Your task to perform on an android device: open app "Life360: Find Family & Friends" (install if not already installed) and enter user name: "gusts@gmail.com" and password: "assurers" Image 0: 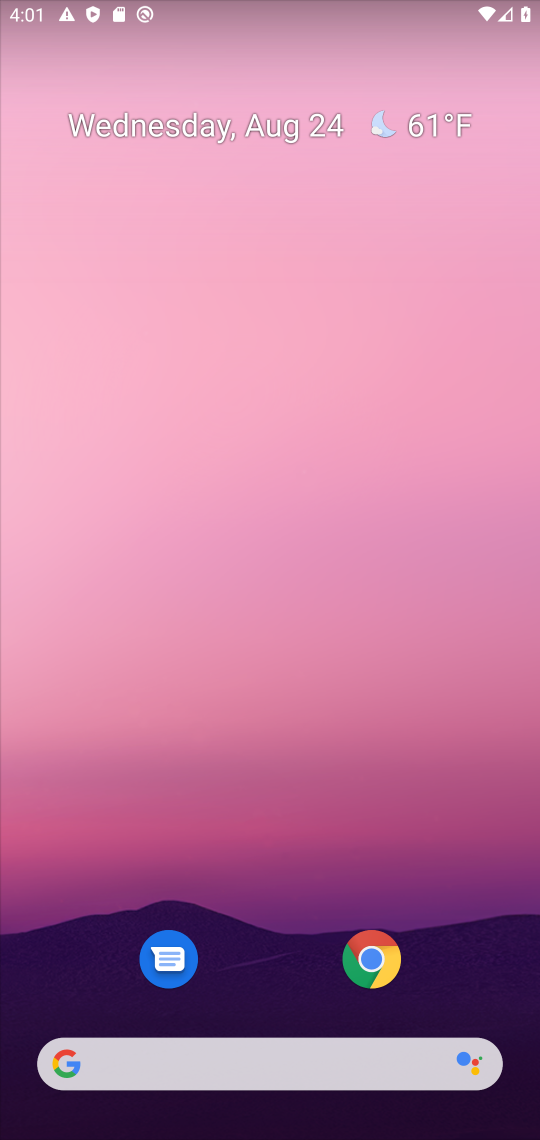
Step 0: drag from (295, 1006) to (289, 7)
Your task to perform on an android device: open app "Life360: Find Family & Friends" (install if not already installed) and enter user name: "gusts@gmail.com" and password: "assurers" Image 1: 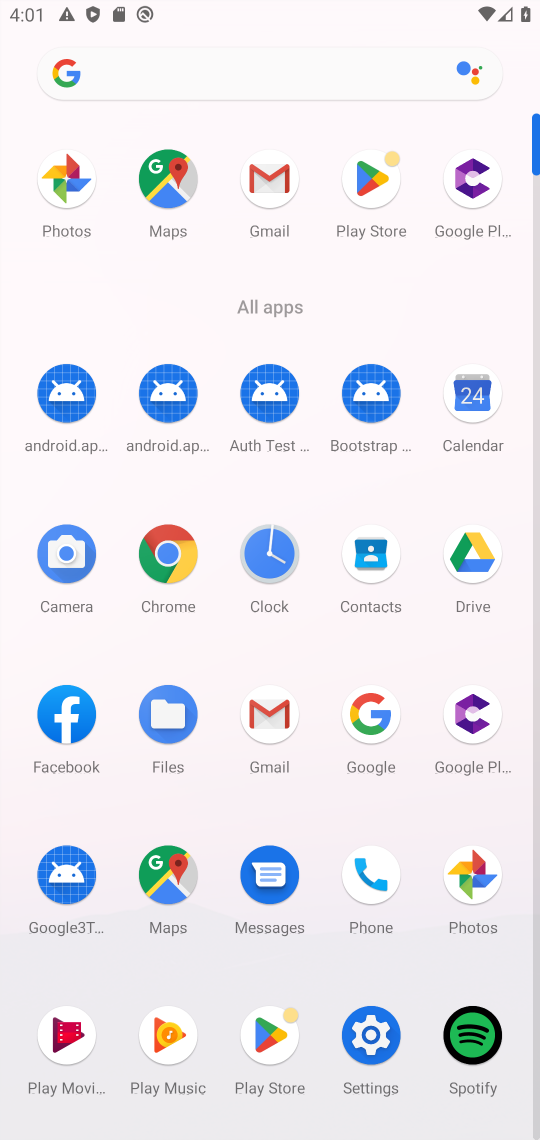
Step 1: click (263, 1044)
Your task to perform on an android device: open app "Life360: Find Family & Friends" (install if not already installed) and enter user name: "gusts@gmail.com" and password: "assurers" Image 2: 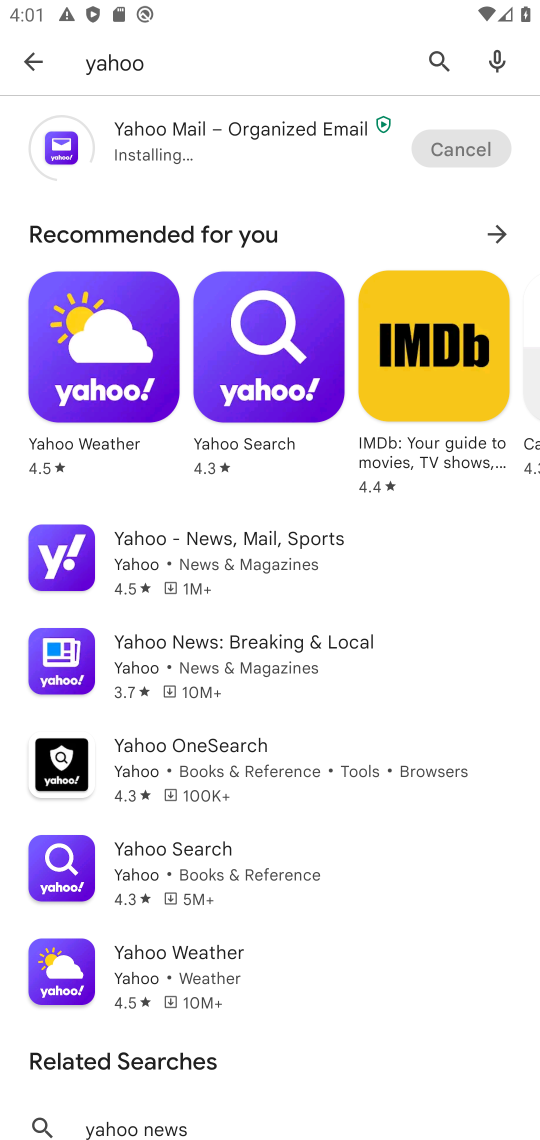
Step 2: click (422, 61)
Your task to perform on an android device: open app "Life360: Find Family & Friends" (install if not already installed) and enter user name: "gusts@gmail.com" and password: "assurers" Image 3: 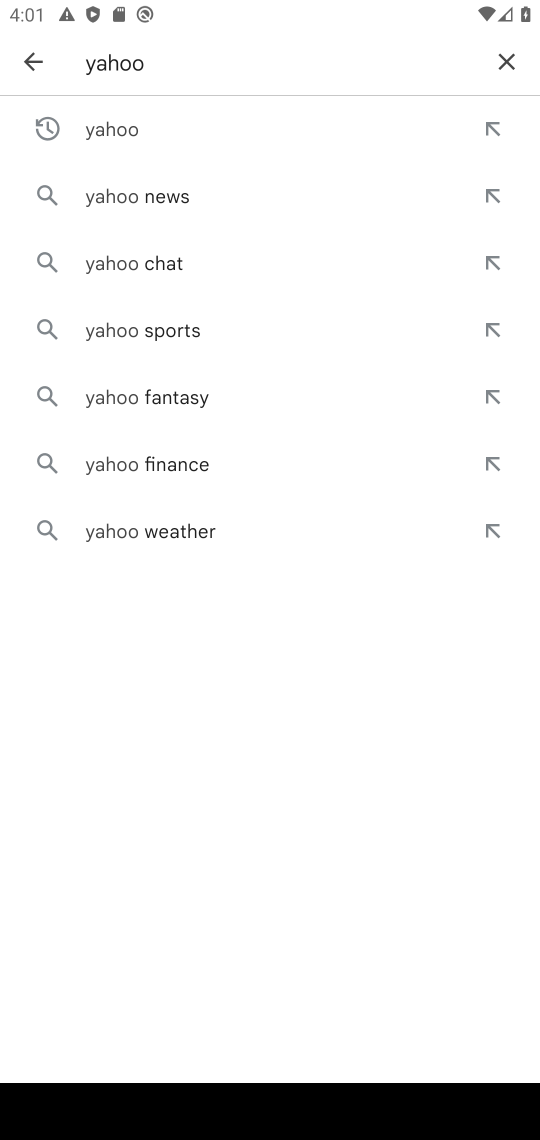
Step 3: click (506, 63)
Your task to perform on an android device: open app "Life360: Find Family & Friends" (install if not already installed) and enter user name: "gusts@gmail.com" and password: "assurers" Image 4: 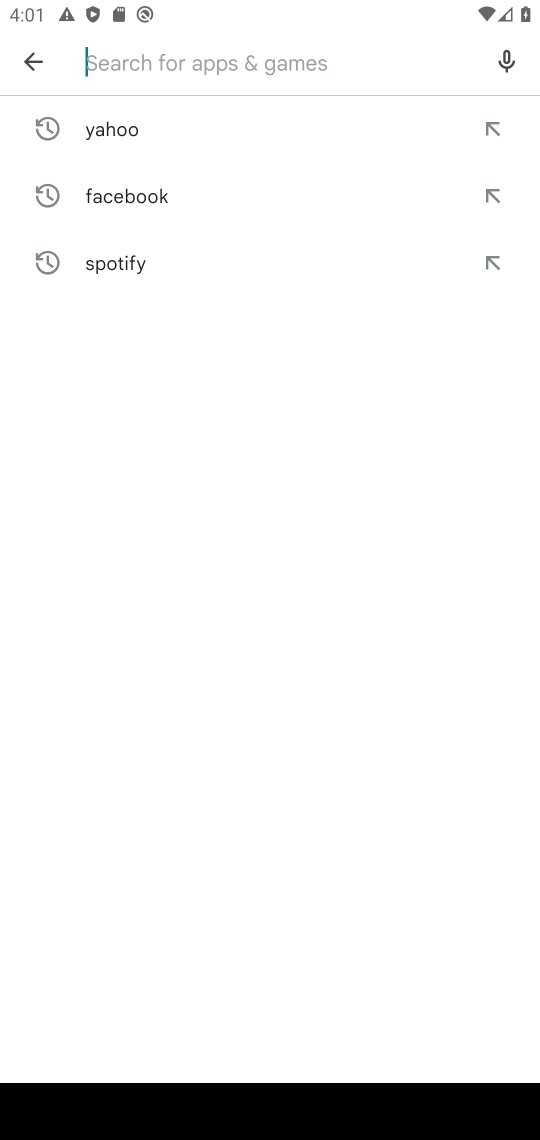
Step 4: type "life360"
Your task to perform on an android device: open app "Life360: Find Family & Friends" (install if not already installed) and enter user name: "gusts@gmail.com" and password: "assurers" Image 5: 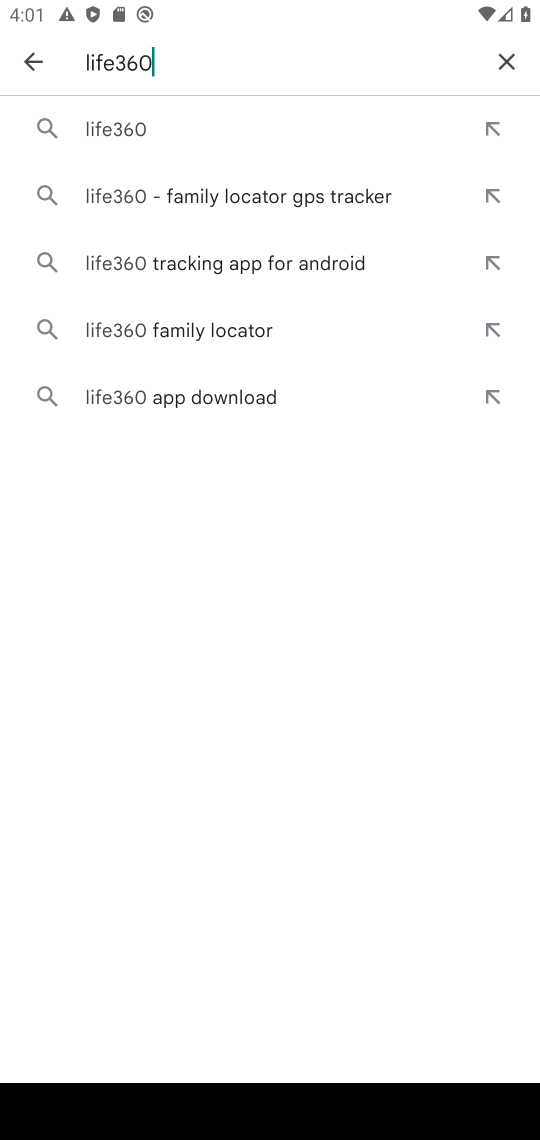
Step 5: click (191, 136)
Your task to perform on an android device: open app "Life360: Find Family & Friends" (install if not already installed) and enter user name: "gusts@gmail.com" and password: "assurers" Image 6: 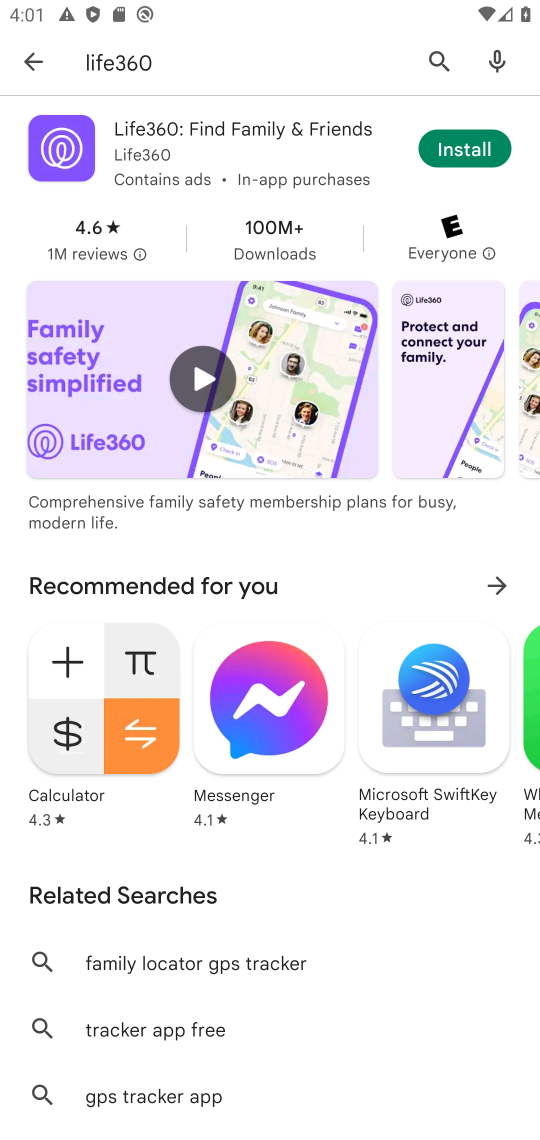
Step 6: click (438, 157)
Your task to perform on an android device: open app "Life360: Find Family & Friends" (install if not already installed) and enter user name: "gusts@gmail.com" and password: "assurers" Image 7: 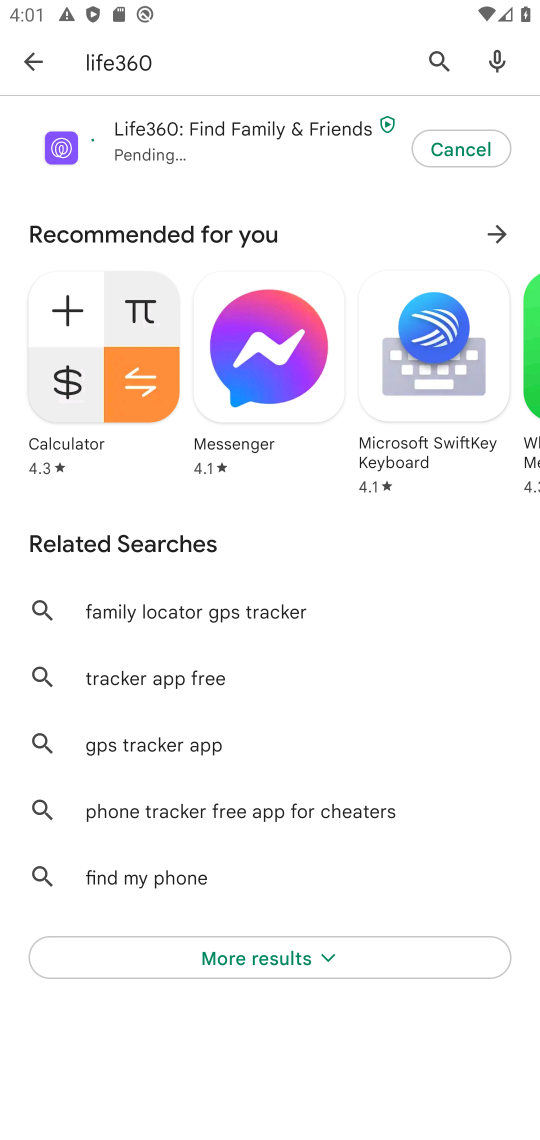
Step 7: task complete